Your task to perform on an android device: change keyboard looks Image 0: 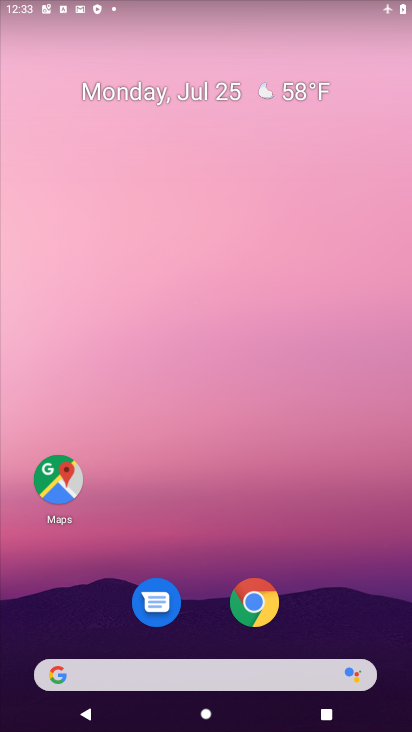
Step 0: drag from (191, 605) to (223, 135)
Your task to perform on an android device: change keyboard looks Image 1: 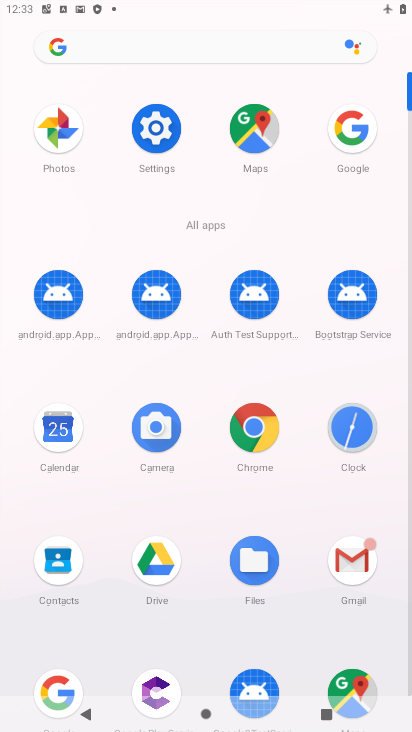
Step 1: click (159, 137)
Your task to perform on an android device: change keyboard looks Image 2: 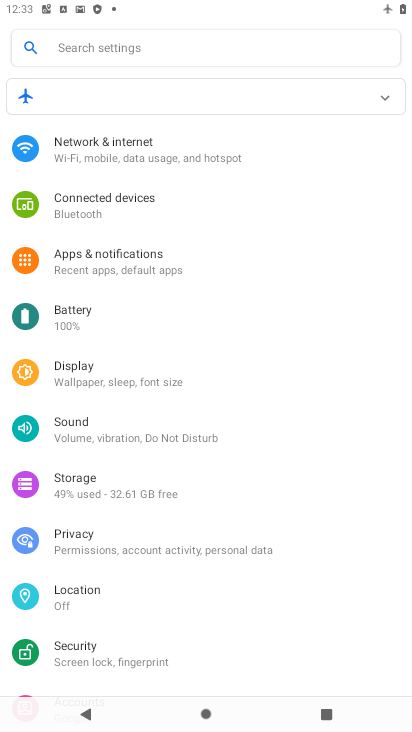
Step 2: drag from (153, 651) to (207, 70)
Your task to perform on an android device: change keyboard looks Image 3: 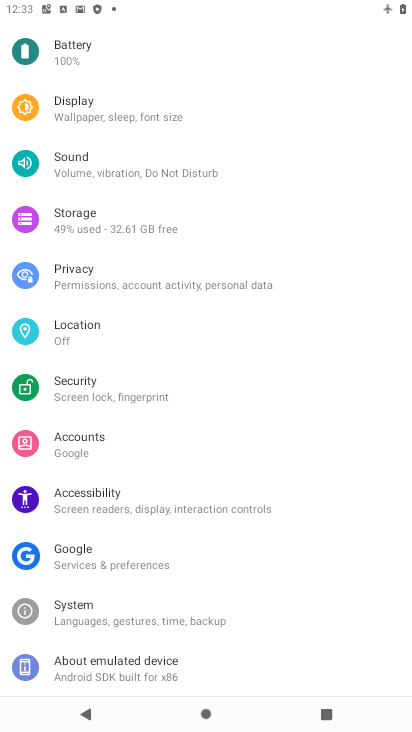
Step 3: click (110, 612)
Your task to perform on an android device: change keyboard looks Image 4: 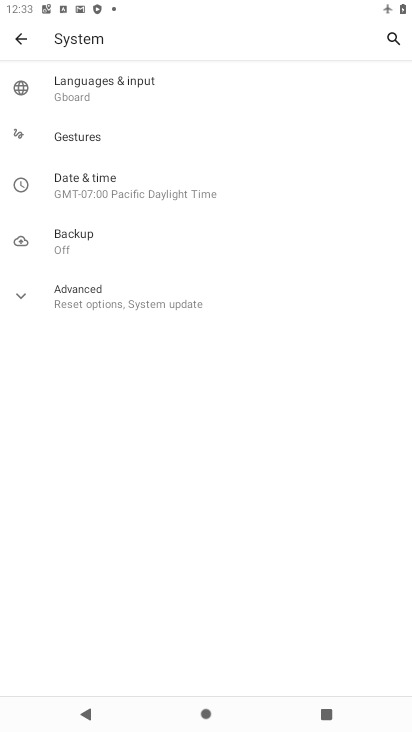
Step 4: click (130, 83)
Your task to perform on an android device: change keyboard looks Image 5: 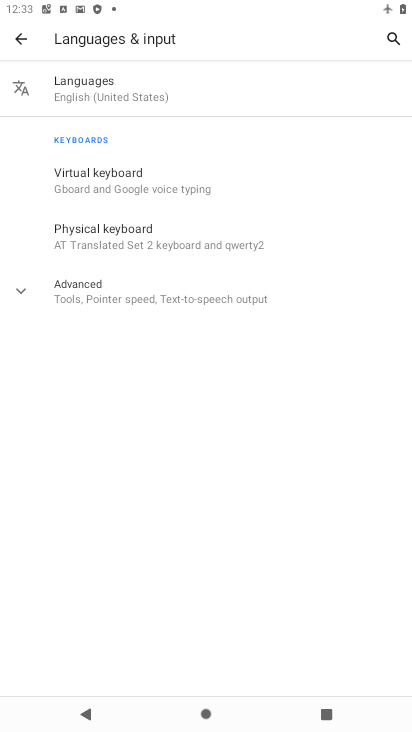
Step 5: click (155, 97)
Your task to perform on an android device: change keyboard looks Image 6: 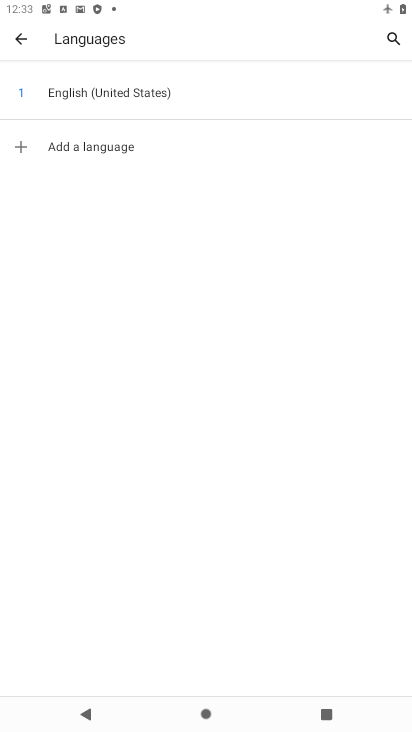
Step 6: click (6, 38)
Your task to perform on an android device: change keyboard looks Image 7: 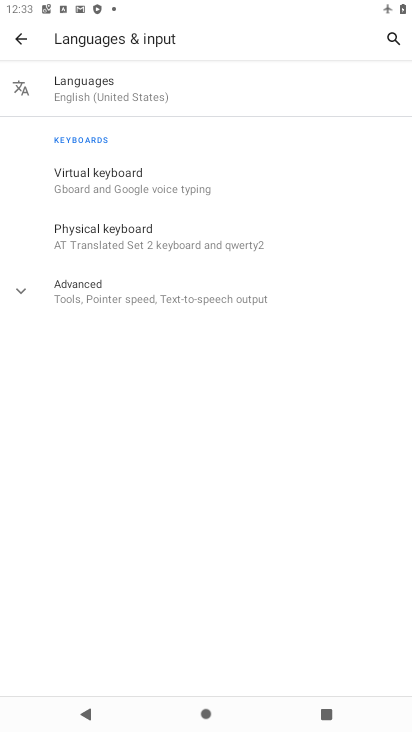
Step 7: click (126, 195)
Your task to perform on an android device: change keyboard looks Image 8: 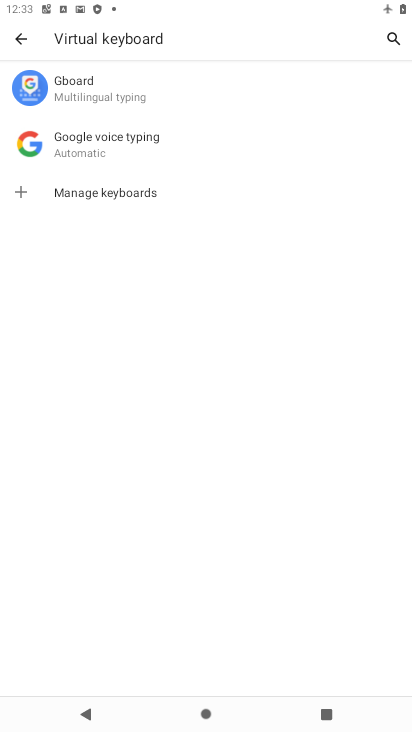
Step 8: click (156, 86)
Your task to perform on an android device: change keyboard looks Image 9: 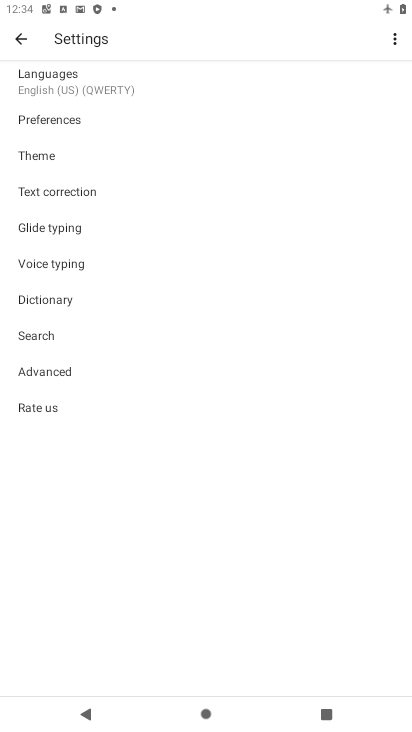
Step 9: click (87, 158)
Your task to perform on an android device: change keyboard looks Image 10: 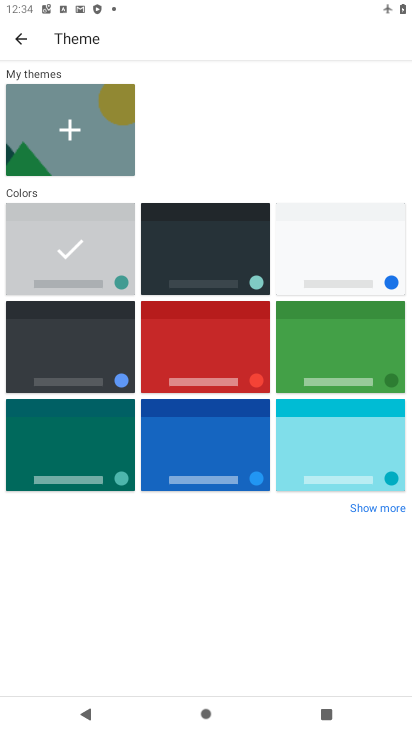
Step 10: click (320, 358)
Your task to perform on an android device: change keyboard looks Image 11: 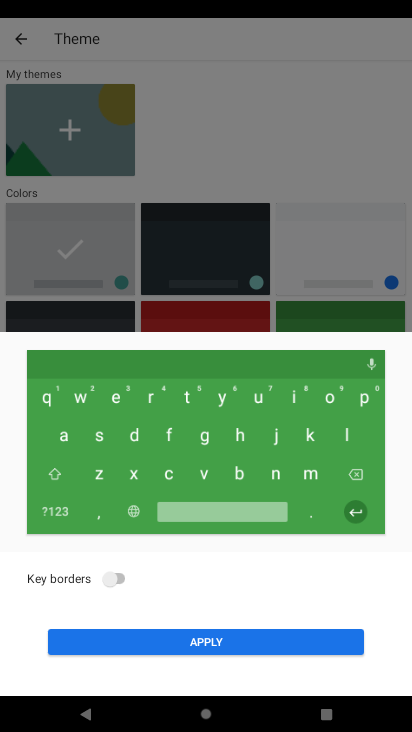
Step 11: click (198, 651)
Your task to perform on an android device: change keyboard looks Image 12: 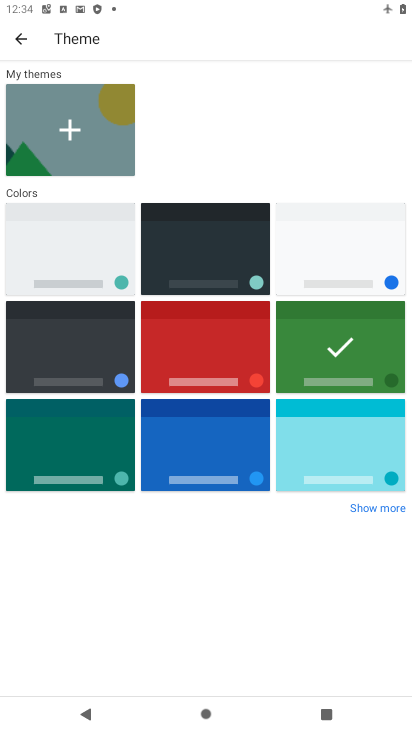
Step 12: task complete